Your task to perform on an android device: show emergency info Image 0: 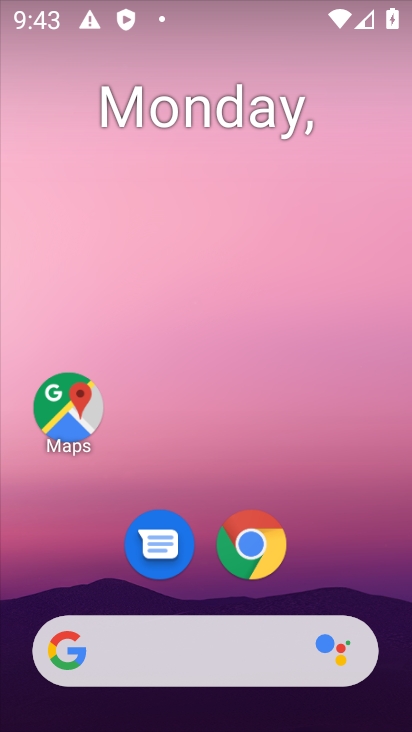
Step 0: drag from (224, 663) to (41, 0)
Your task to perform on an android device: show emergency info Image 1: 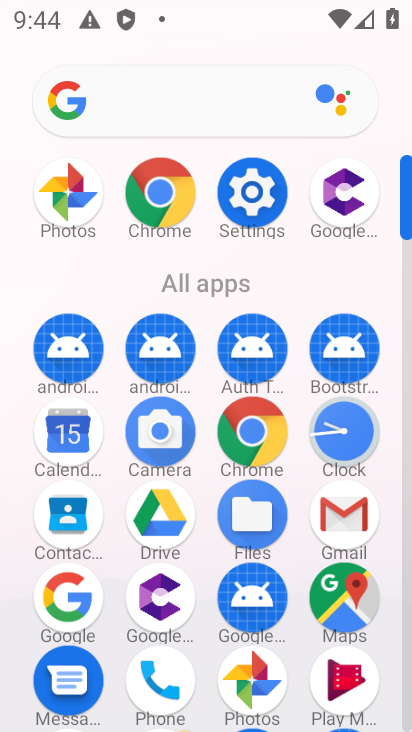
Step 1: click (232, 174)
Your task to perform on an android device: show emergency info Image 2: 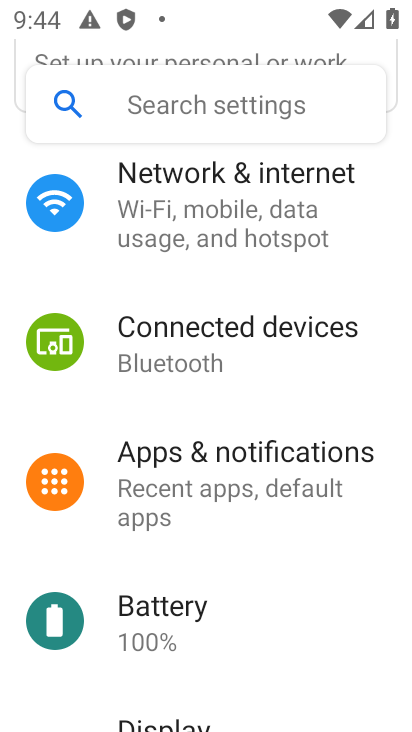
Step 2: drag from (249, 527) to (185, 8)
Your task to perform on an android device: show emergency info Image 3: 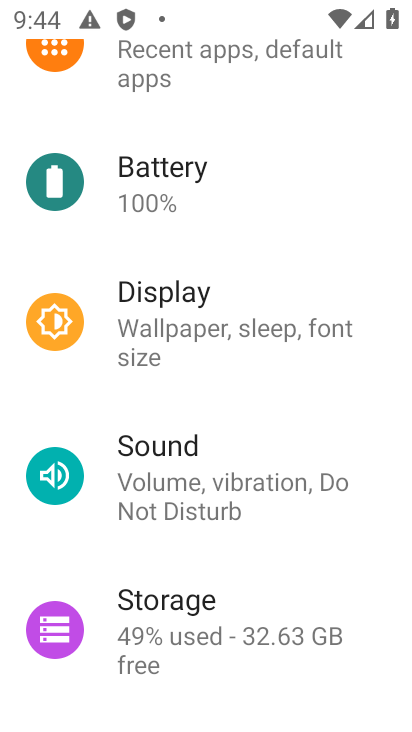
Step 3: drag from (223, 655) to (258, 5)
Your task to perform on an android device: show emergency info Image 4: 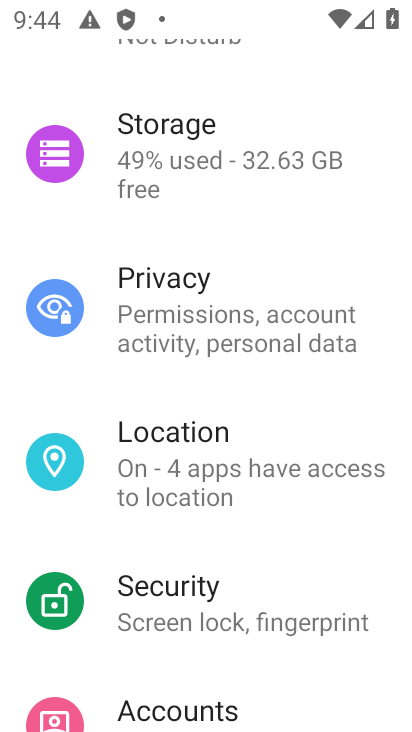
Step 4: drag from (232, 688) to (245, 99)
Your task to perform on an android device: show emergency info Image 5: 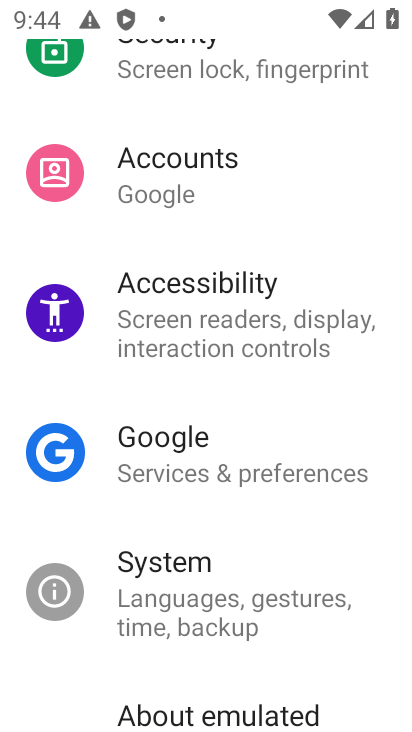
Step 5: drag from (238, 649) to (248, 136)
Your task to perform on an android device: show emergency info Image 6: 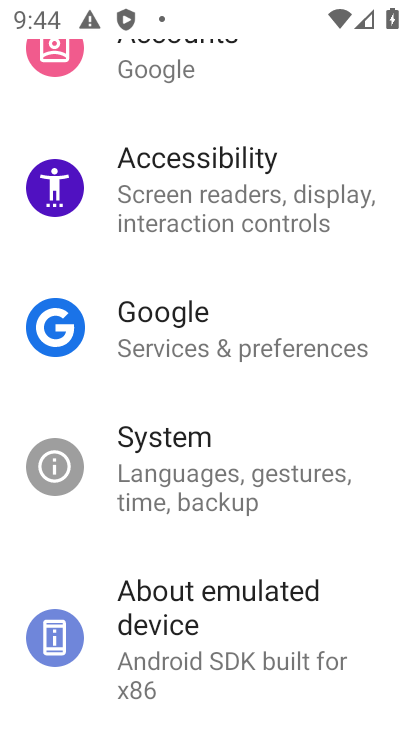
Step 6: click (182, 637)
Your task to perform on an android device: show emergency info Image 7: 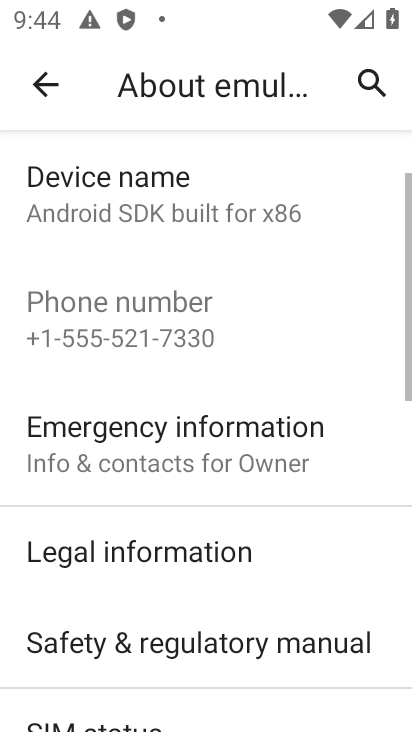
Step 7: click (199, 443)
Your task to perform on an android device: show emergency info Image 8: 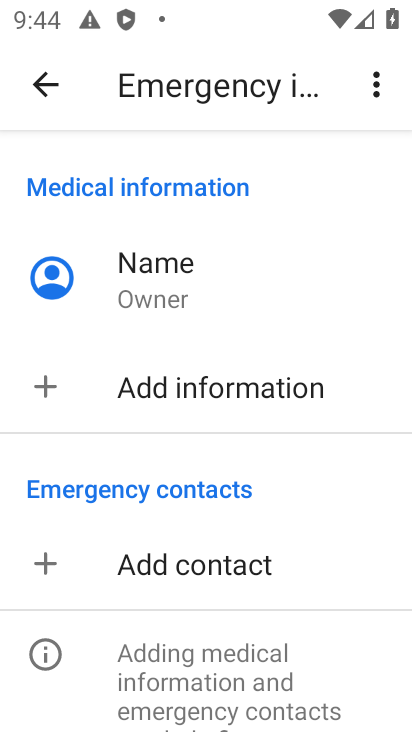
Step 8: task complete